Your task to perform on an android device: Open Amazon Image 0: 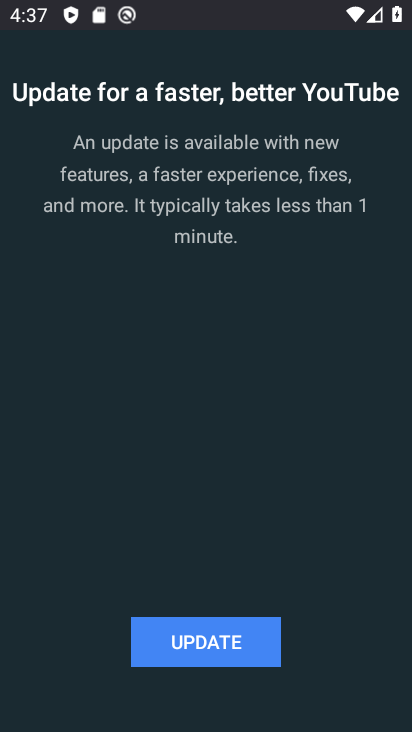
Step 0: press home button
Your task to perform on an android device: Open Amazon Image 1: 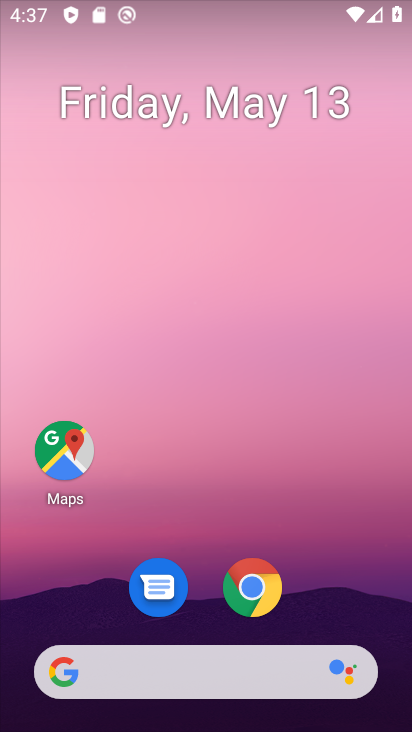
Step 1: click (268, 596)
Your task to perform on an android device: Open Amazon Image 2: 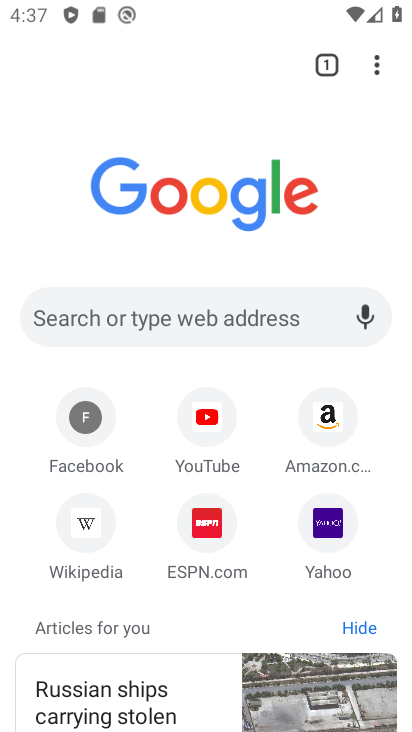
Step 2: click (335, 434)
Your task to perform on an android device: Open Amazon Image 3: 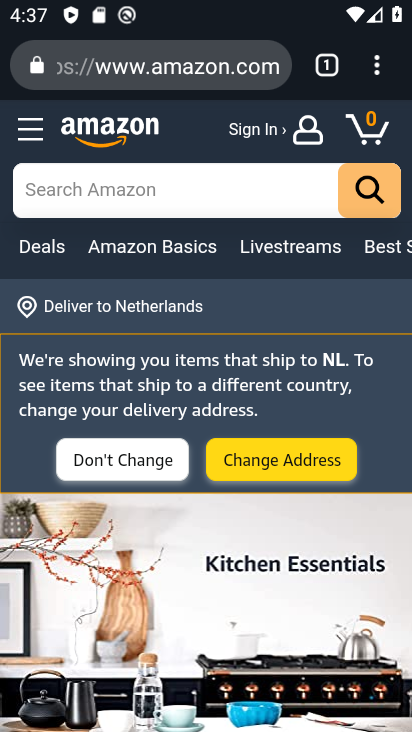
Step 3: task complete